Your task to perform on an android device: turn on data saver in the chrome app Image 0: 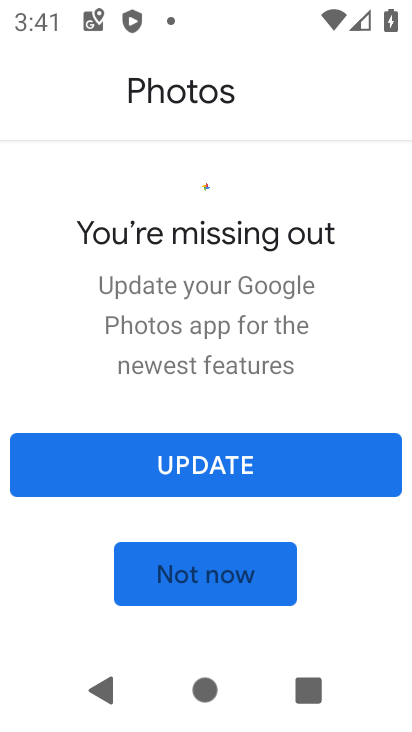
Step 0: press home button
Your task to perform on an android device: turn on data saver in the chrome app Image 1: 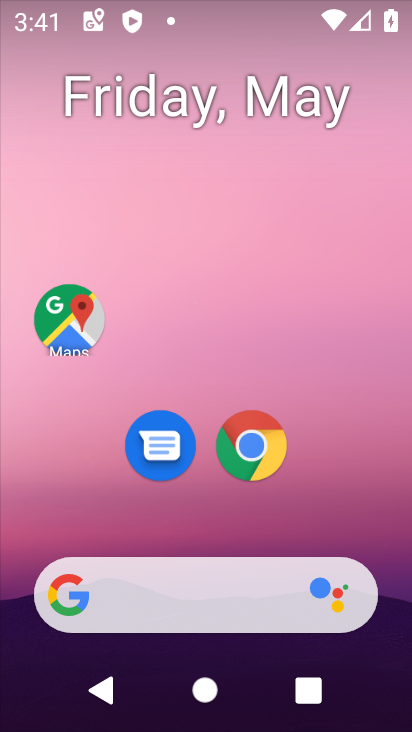
Step 1: drag from (187, 494) to (275, 11)
Your task to perform on an android device: turn on data saver in the chrome app Image 2: 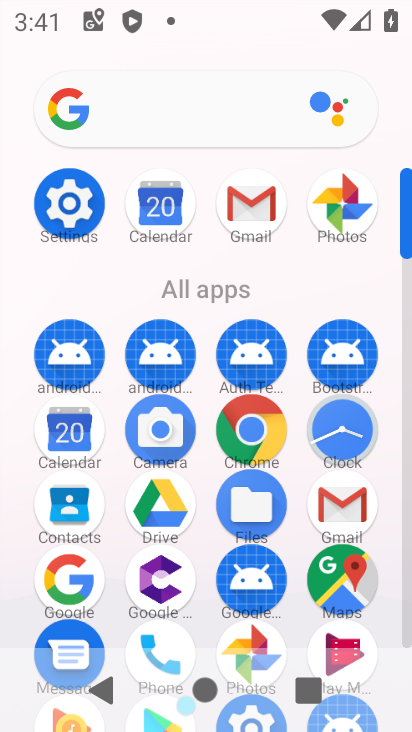
Step 2: click (266, 436)
Your task to perform on an android device: turn on data saver in the chrome app Image 3: 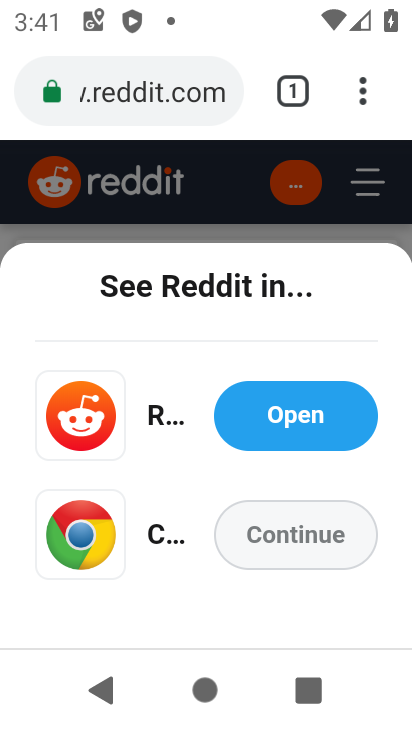
Step 3: click (358, 94)
Your task to perform on an android device: turn on data saver in the chrome app Image 4: 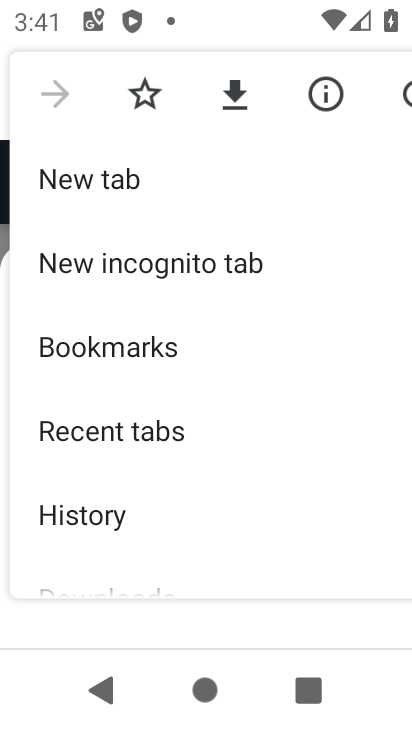
Step 4: drag from (99, 493) to (127, 149)
Your task to perform on an android device: turn on data saver in the chrome app Image 5: 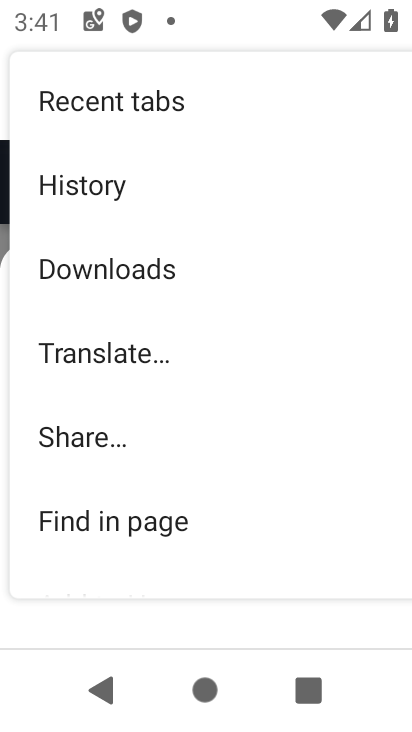
Step 5: drag from (126, 473) to (165, 172)
Your task to perform on an android device: turn on data saver in the chrome app Image 6: 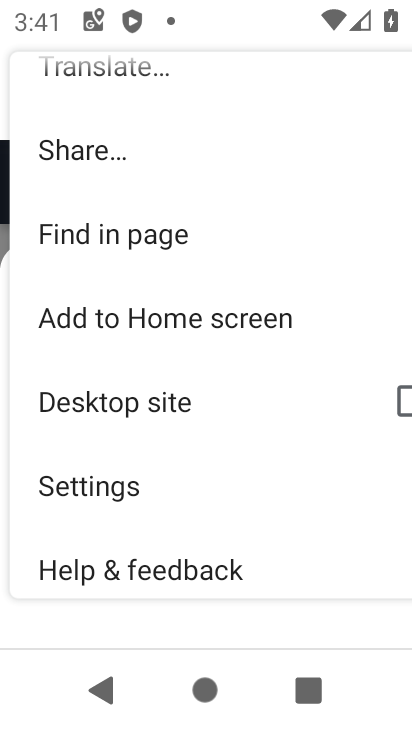
Step 6: click (144, 497)
Your task to perform on an android device: turn on data saver in the chrome app Image 7: 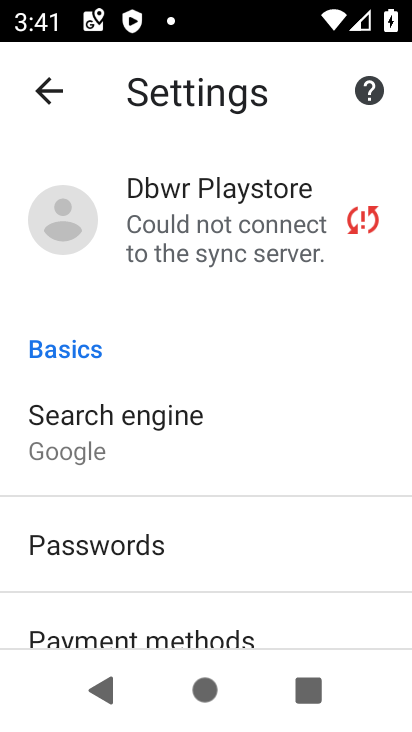
Step 7: drag from (125, 572) to (176, 200)
Your task to perform on an android device: turn on data saver in the chrome app Image 8: 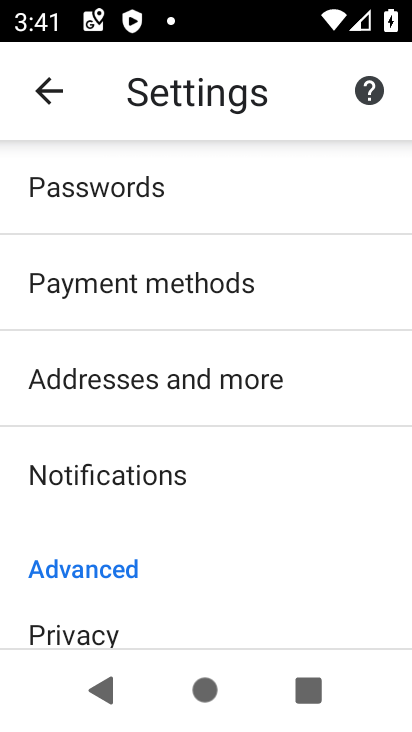
Step 8: drag from (154, 570) to (176, 130)
Your task to perform on an android device: turn on data saver in the chrome app Image 9: 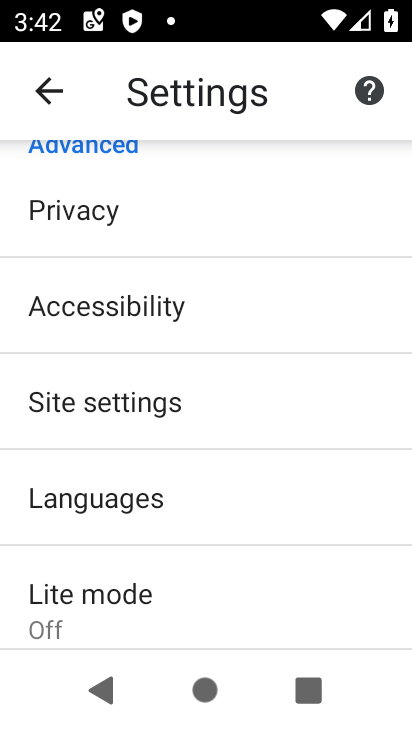
Step 9: click (102, 602)
Your task to perform on an android device: turn on data saver in the chrome app Image 10: 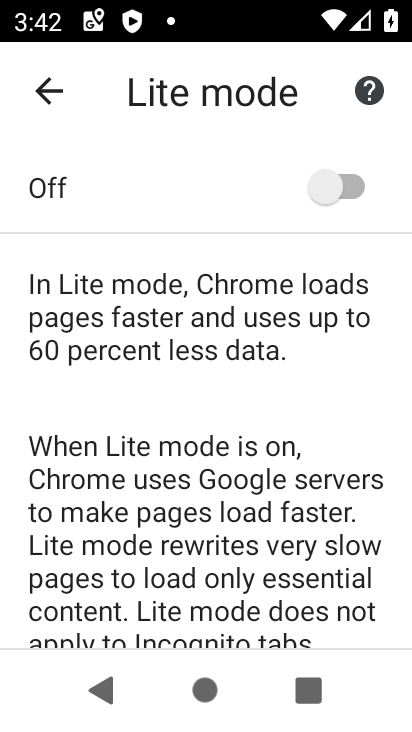
Step 10: click (351, 192)
Your task to perform on an android device: turn on data saver in the chrome app Image 11: 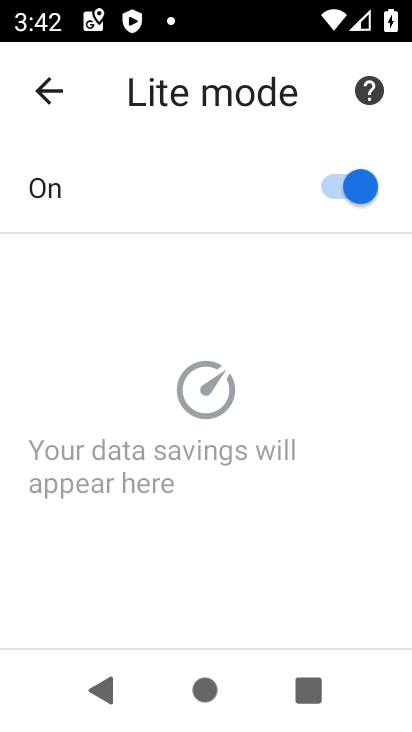
Step 11: task complete